Your task to perform on an android device: turn on javascript in the chrome app Image 0: 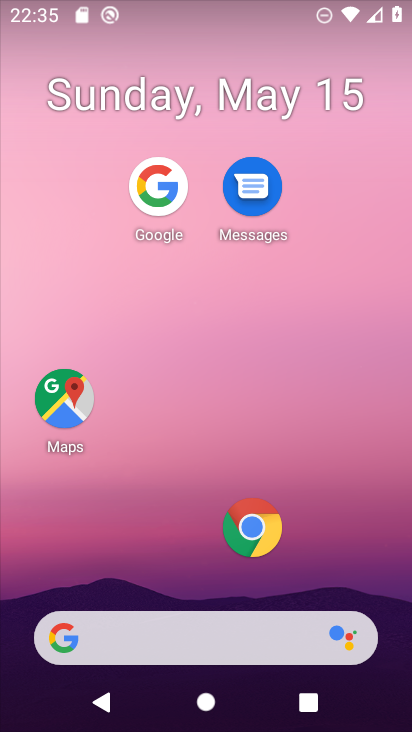
Step 0: press home button
Your task to perform on an android device: turn on javascript in the chrome app Image 1: 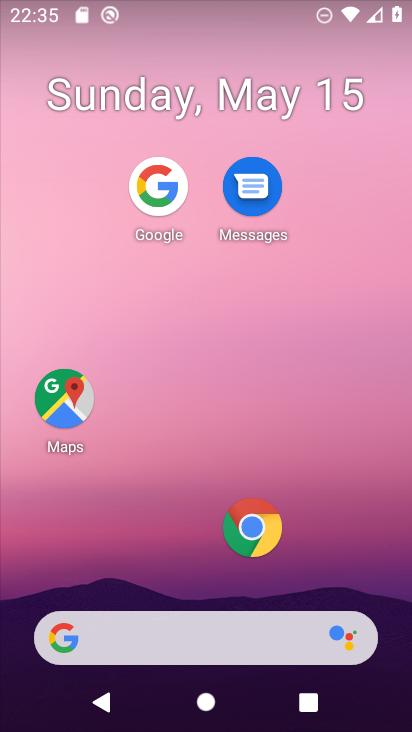
Step 1: drag from (189, 638) to (340, 126)
Your task to perform on an android device: turn on javascript in the chrome app Image 2: 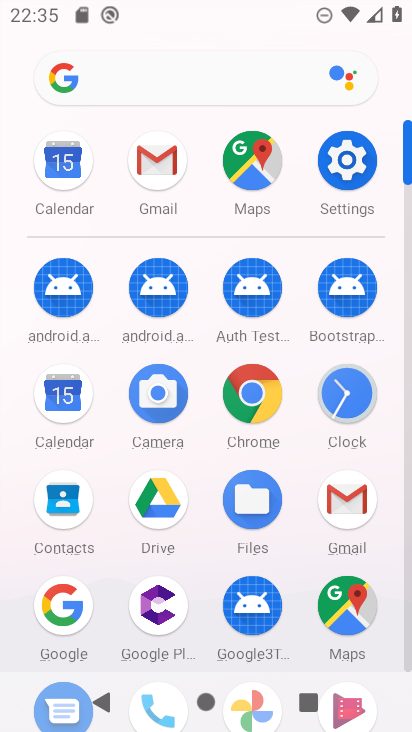
Step 2: click (261, 408)
Your task to perform on an android device: turn on javascript in the chrome app Image 3: 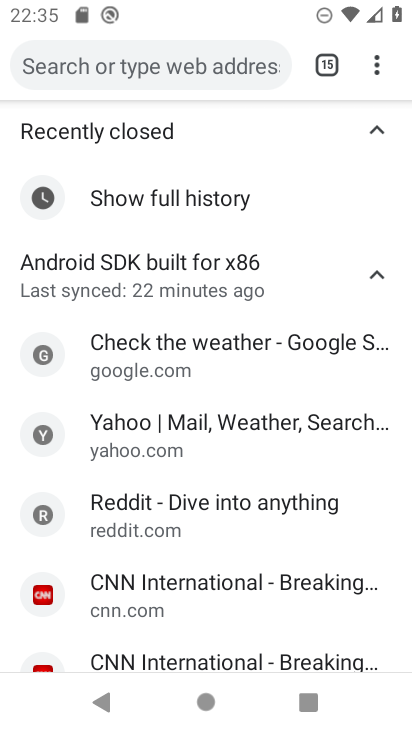
Step 3: drag from (376, 70) to (199, 542)
Your task to perform on an android device: turn on javascript in the chrome app Image 4: 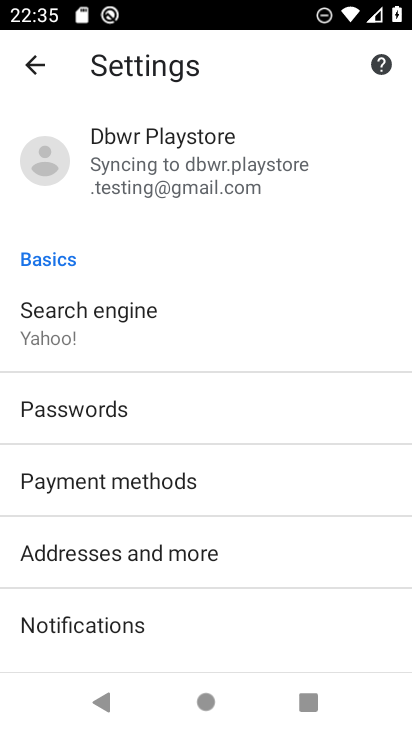
Step 4: drag from (156, 615) to (301, 194)
Your task to perform on an android device: turn on javascript in the chrome app Image 5: 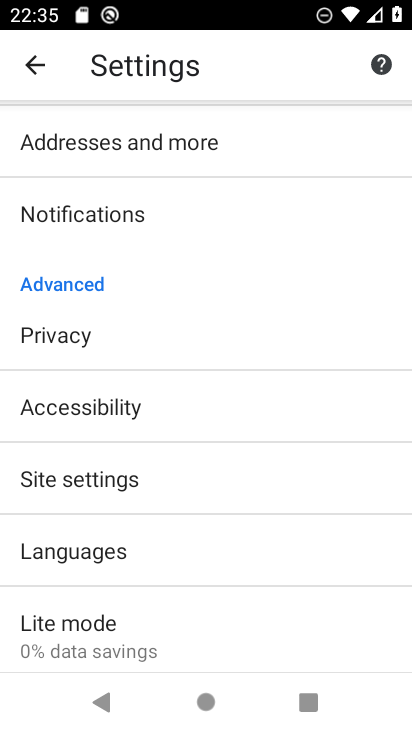
Step 5: click (97, 481)
Your task to perform on an android device: turn on javascript in the chrome app Image 6: 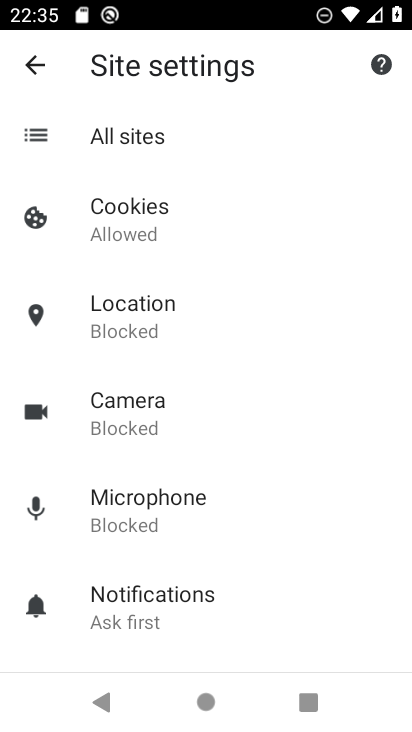
Step 6: drag from (219, 579) to (282, 358)
Your task to perform on an android device: turn on javascript in the chrome app Image 7: 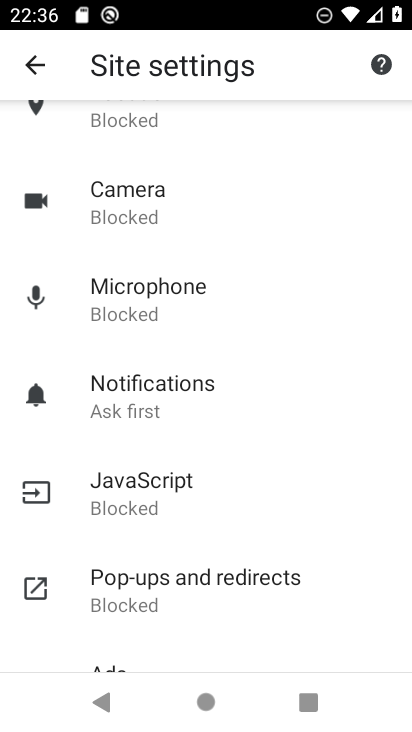
Step 7: click (166, 488)
Your task to perform on an android device: turn on javascript in the chrome app Image 8: 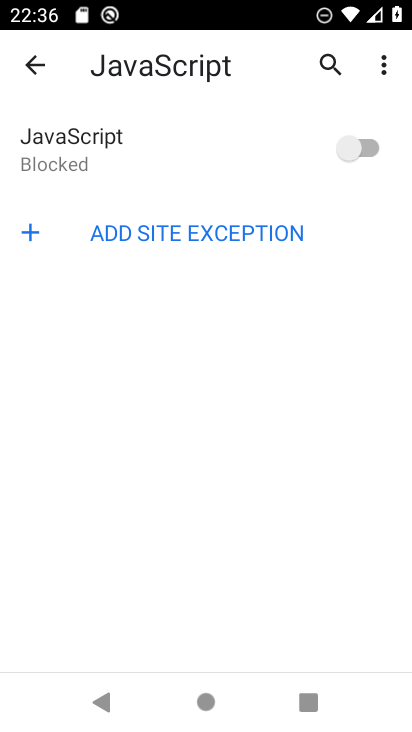
Step 8: click (366, 146)
Your task to perform on an android device: turn on javascript in the chrome app Image 9: 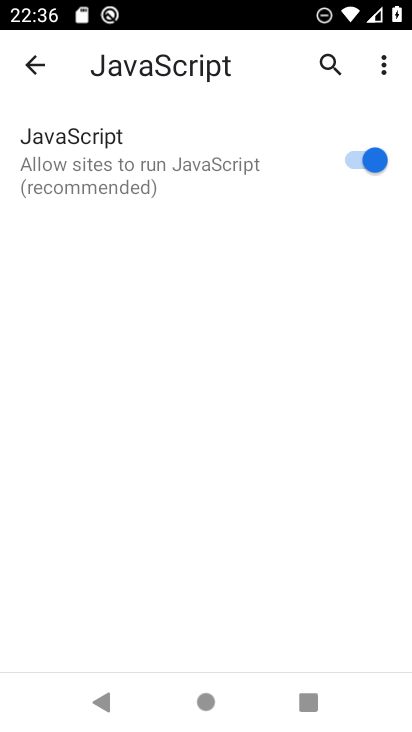
Step 9: task complete